Your task to perform on an android device: Go to Yahoo.com Image 0: 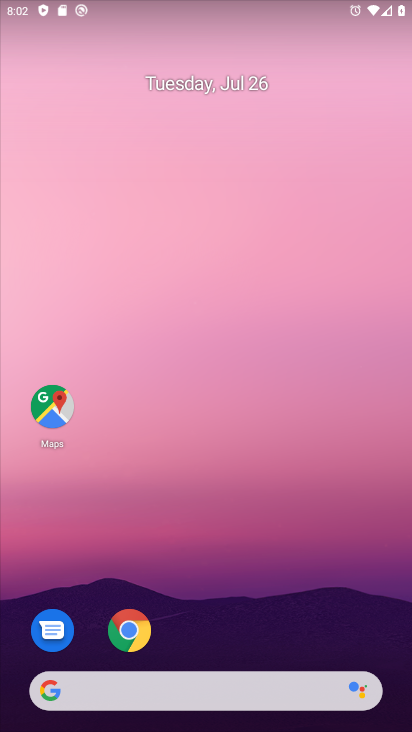
Step 0: click (130, 631)
Your task to perform on an android device: Go to Yahoo.com Image 1: 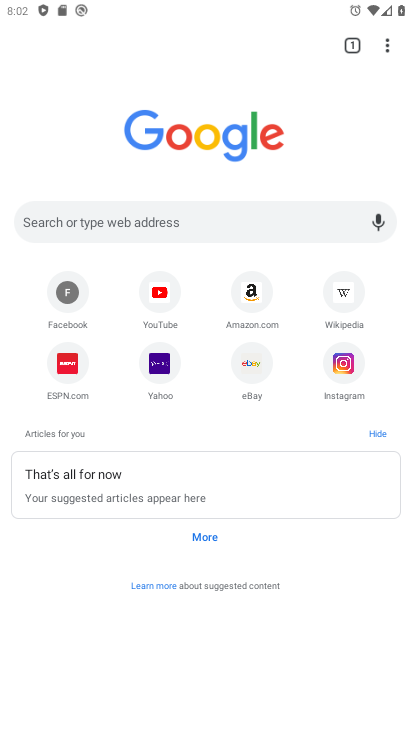
Step 1: click (164, 365)
Your task to perform on an android device: Go to Yahoo.com Image 2: 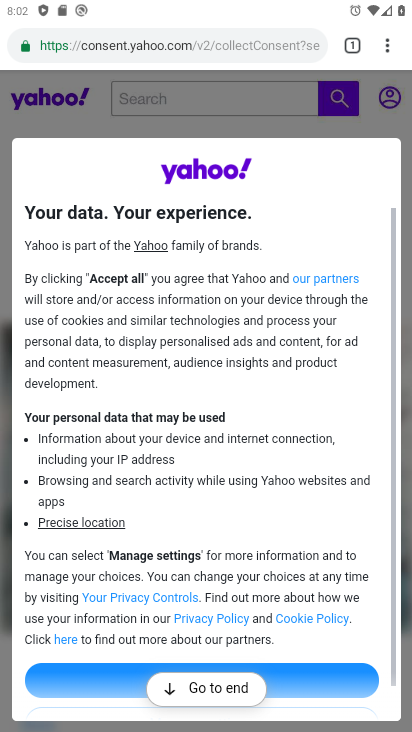
Step 2: click (205, 684)
Your task to perform on an android device: Go to Yahoo.com Image 3: 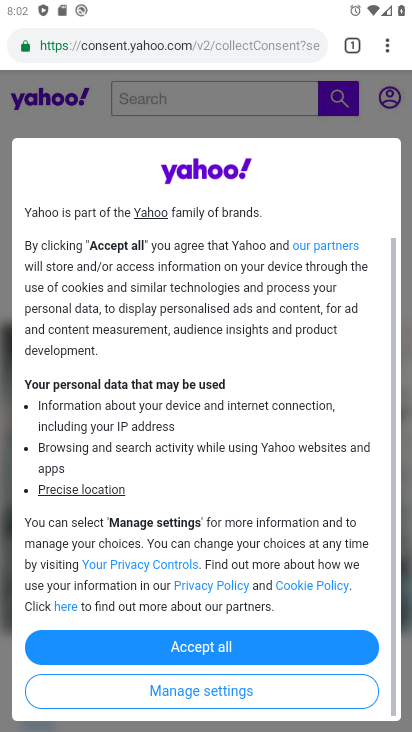
Step 3: click (227, 651)
Your task to perform on an android device: Go to Yahoo.com Image 4: 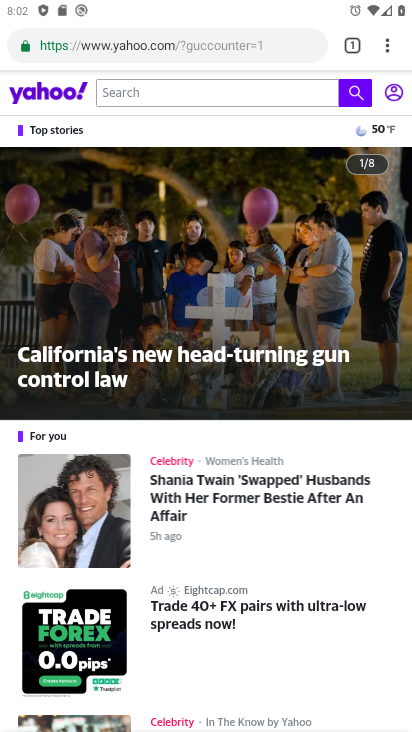
Step 4: task complete